Your task to perform on an android device: find snoozed emails in the gmail app Image 0: 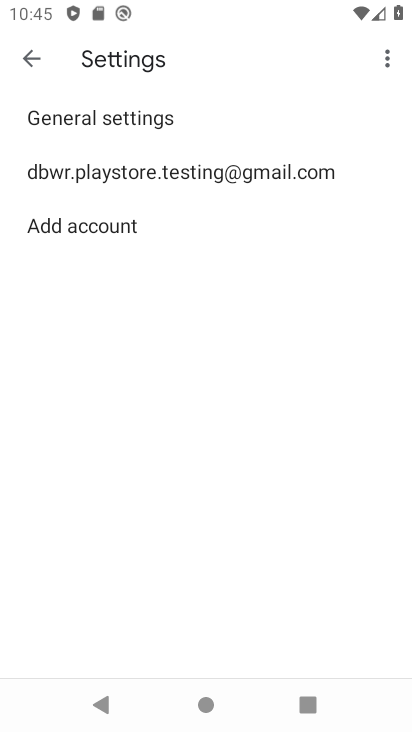
Step 0: press back button
Your task to perform on an android device: find snoozed emails in the gmail app Image 1: 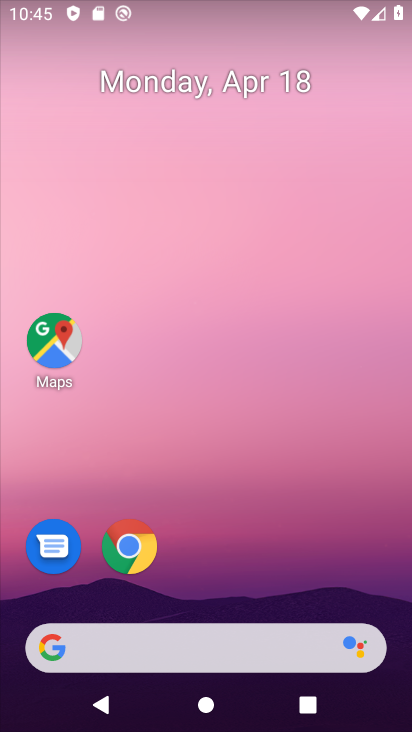
Step 1: drag from (235, 561) to (276, 310)
Your task to perform on an android device: find snoozed emails in the gmail app Image 2: 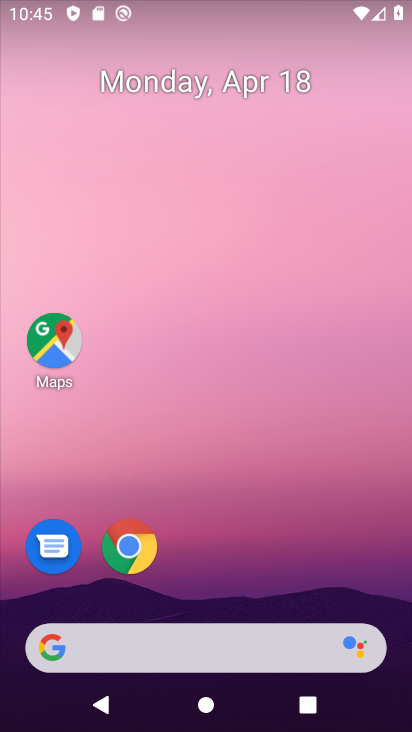
Step 2: drag from (249, 588) to (294, 160)
Your task to perform on an android device: find snoozed emails in the gmail app Image 3: 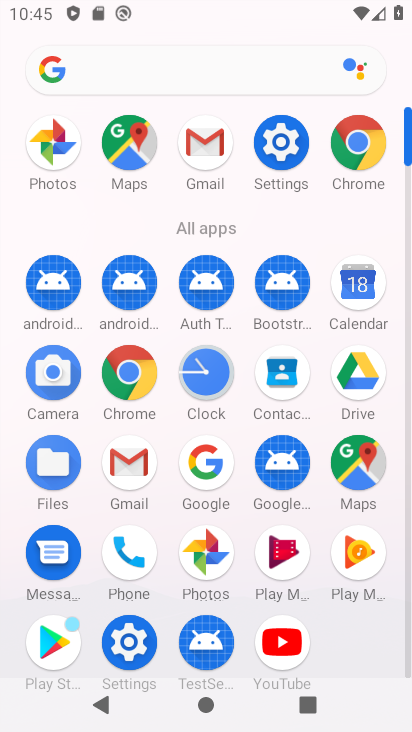
Step 3: click (199, 138)
Your task to perform on an android device: find snoozed emails in the gmail app Image 4: 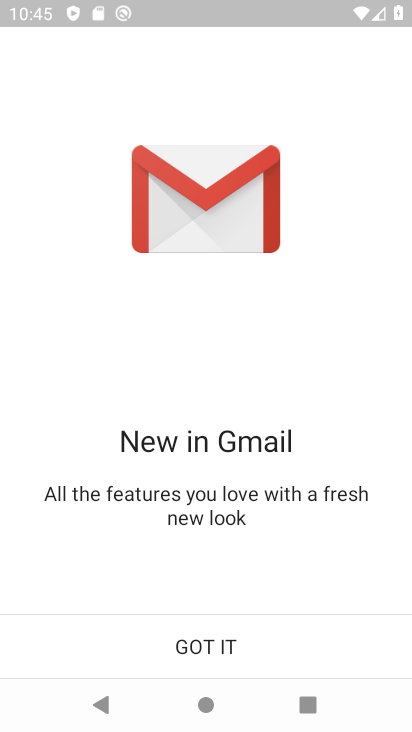
Step 4: click (191, 643)
Your task to perform on an android device: find snoozed emails in the gmail app Image 5: 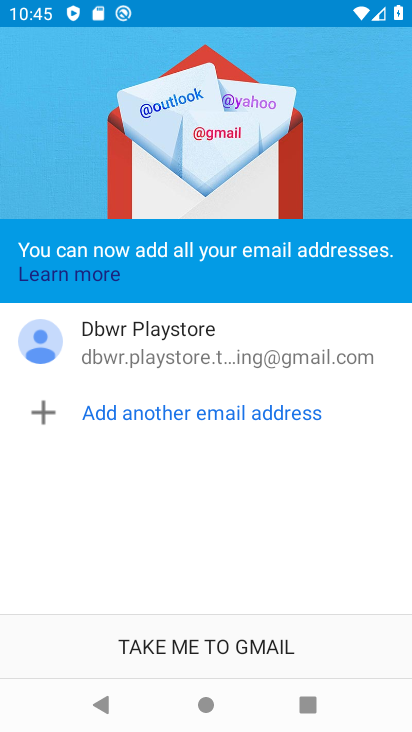
Step 5: click (191, 643)
Your task to perform on an android device: find snoozed emails in the gmail app Image 6: 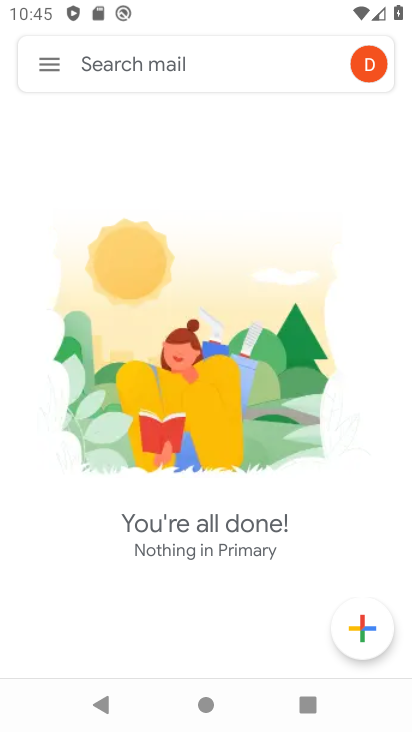
Step 6: click (64, 74)
Your task to perform on an android device: find snoozed emails in the gmail app Image 7: 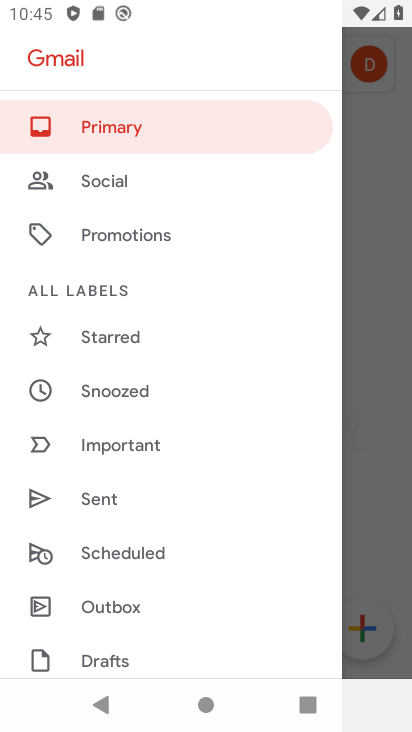
Step 7: drag from (175, 592) to (217, 296)
Your task to perform on an android device: find snoozed emails in the gmail app Image 8: 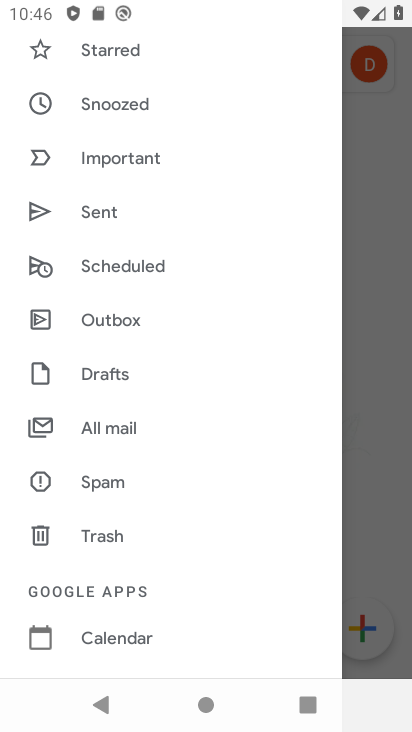
Step 8: click (157, 109)
Your task to perform on an android device: find snoozed emails in the gmail app Image 9: 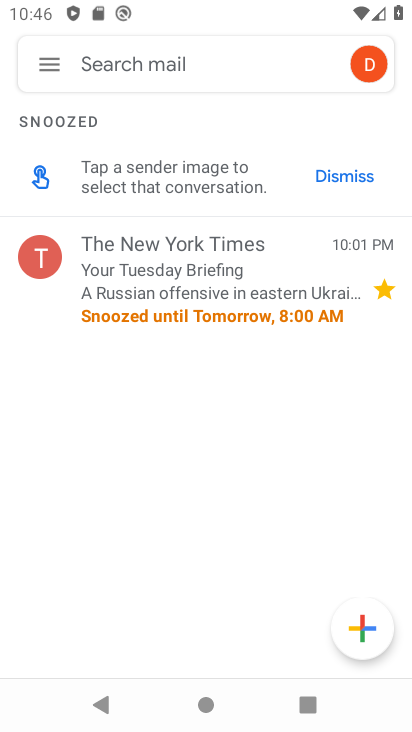
Step 9: task complete